Your task to perform on an android device: open a bookmark in the chrome app Image 0: 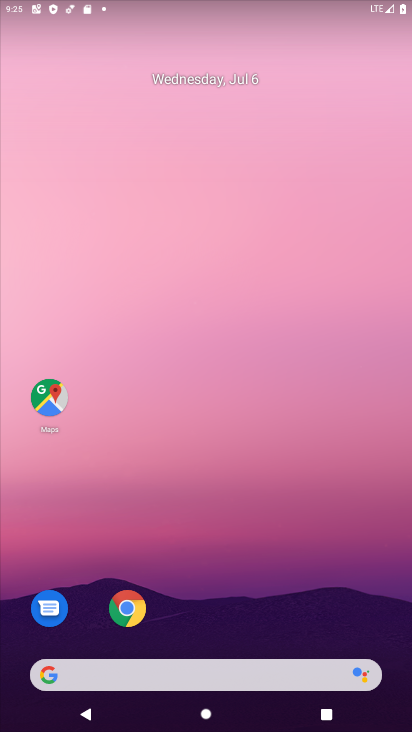
Step 0: click (125, 614)
Your task to perform on an android device: open a bookmark in the chrome app Image 1: 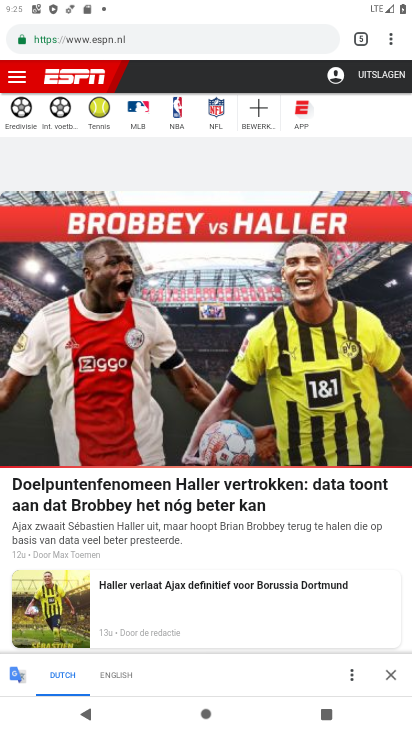
Step 1: click (390, 37)
Your task to perform on an android device: open a bookmark in the chrome app Image 2: 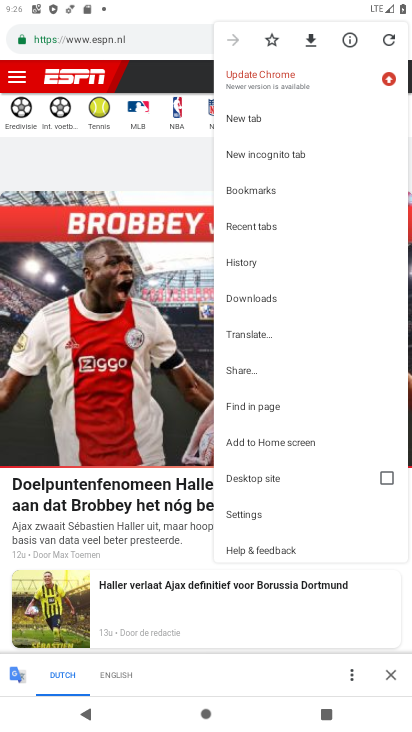
Step 2: click (253, 184)
Your task to perform on an android device: open a bookmark in the chrome app Image 3: 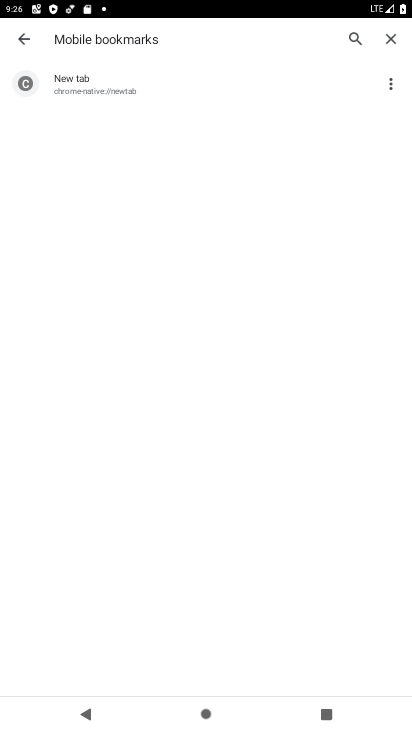
Step 3: task complete